Your task to perform on an android device: see sites visited before in the chrome app Image 0: 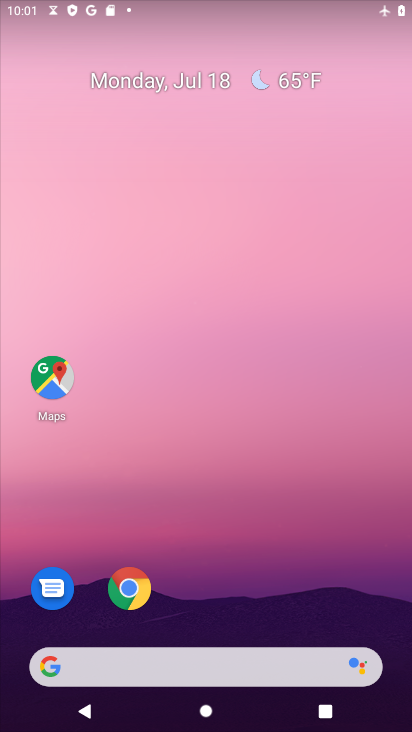
Step 0: click (130, 588)
Your task to perform on an android device: see sites visited before in the chrome app Image 1: 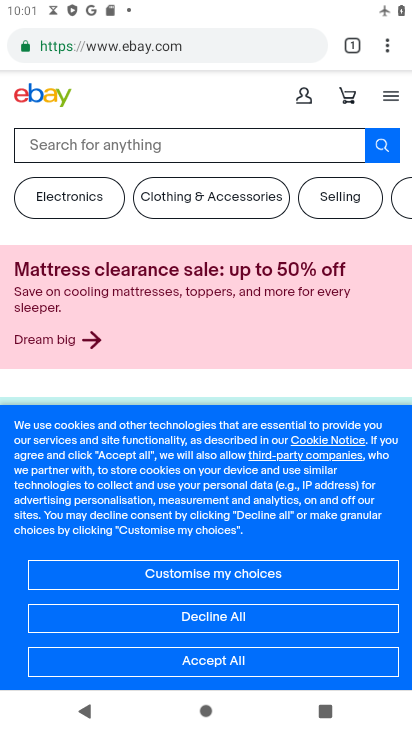
Step 1: click (385, 45)
Your task to perform on an android device: see sites visited before in the chrome app Image 2: 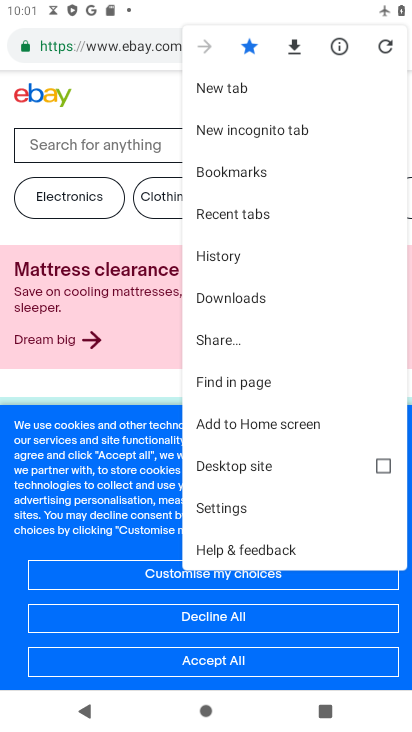
Step 2: click (390, 45)
Your task to perform on an android device: see sites visited before in the chrome app Image 3: 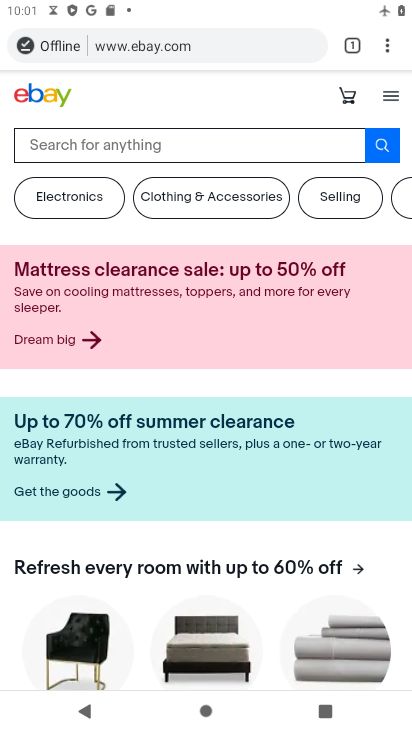
Step 3: click (384, 49)
Your task to perform on an android device: see sites visited before in the chrome app Image 4: 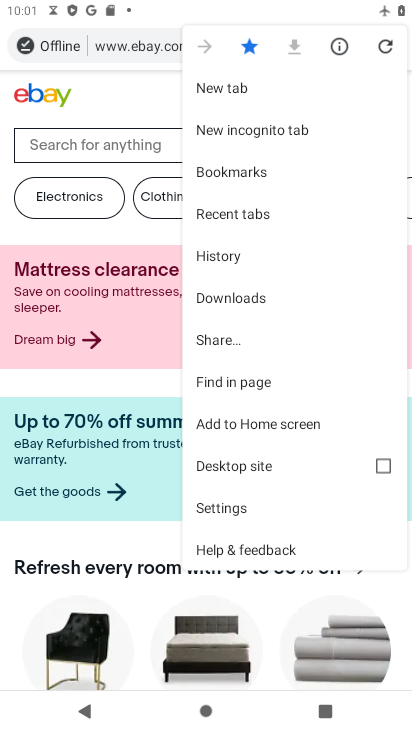
Step 4: click (221, 256)
Your task to perform on an android device: see sites visited before in the chrome app Image 5: 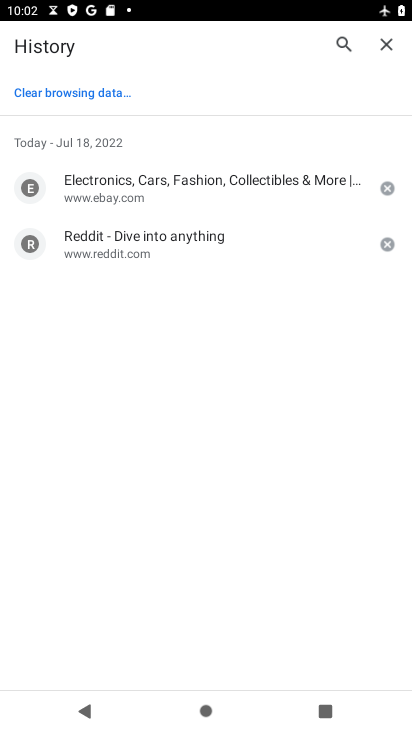
Step 5: task complete